Your task to perform on an android device: open a bookmark in the chrome app Image 0: 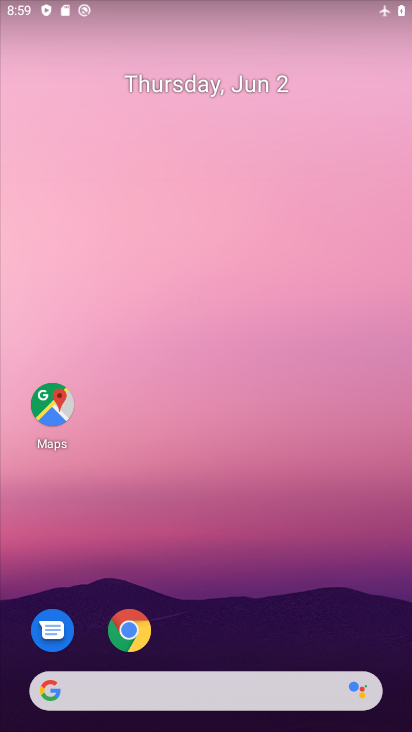
Step 0: click (128, 633)
Your task to perform on an android device: open a bookmark in the chrome app Image 1: 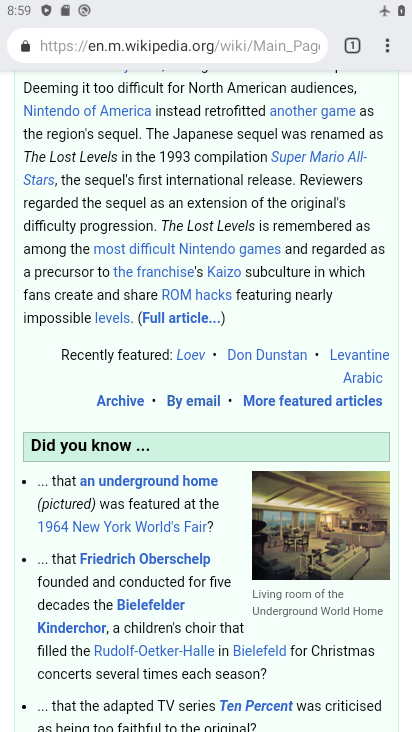
Step 1: click (378, 42)
Your task to perform on an android device: open a bookmark in the chrome app Image 2: 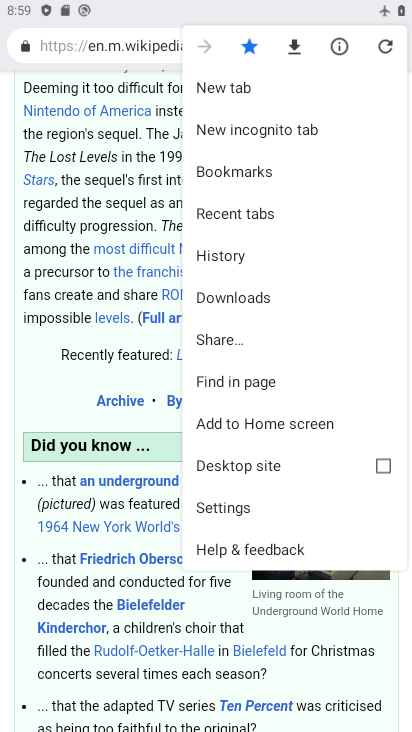
Step 2: click (289, 176)
Your task to perform on an android device: open a bookmark in the chrome app Image 3: 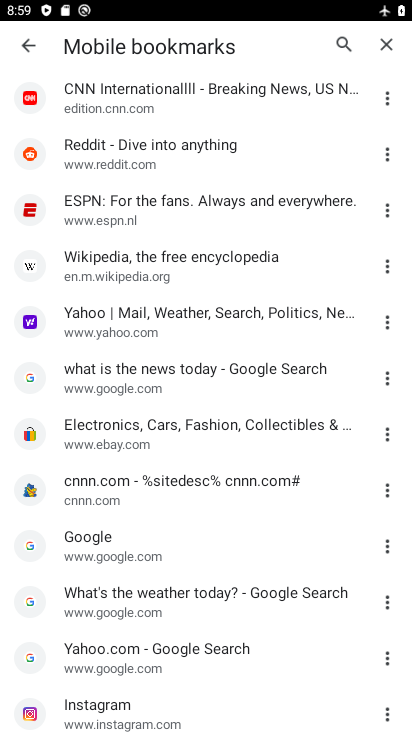
Step 3: click (205, 267)
Your task to perform on an android device: open a bookmark in the chrome app Image 4: 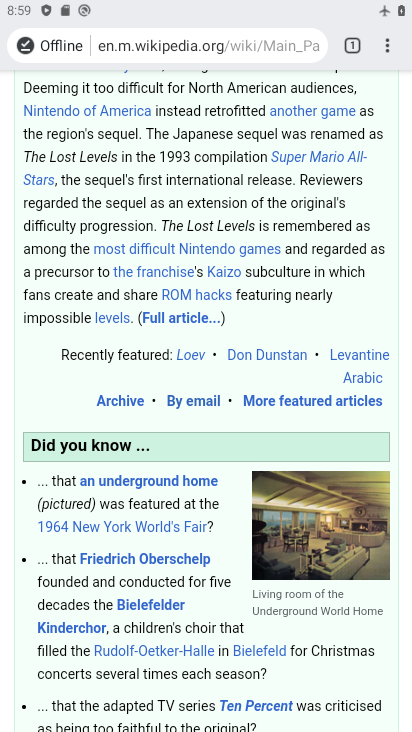
Step 4: task complete